Your task to perform on an android device: change the clock display to digital Image 0: 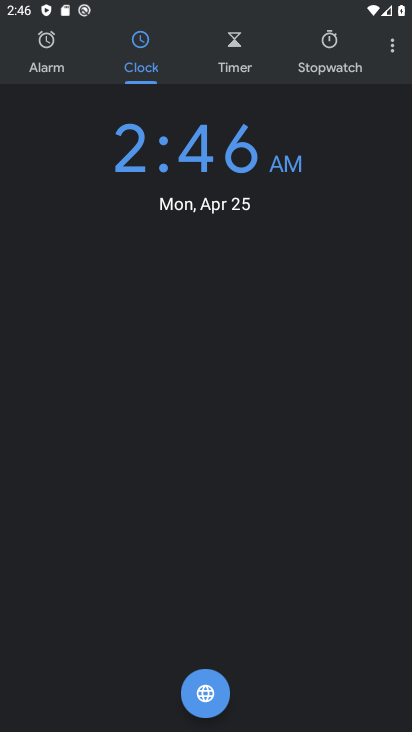
Step 0: press home button
Your task to perform on an android device: change the clock display to digital Image 1: 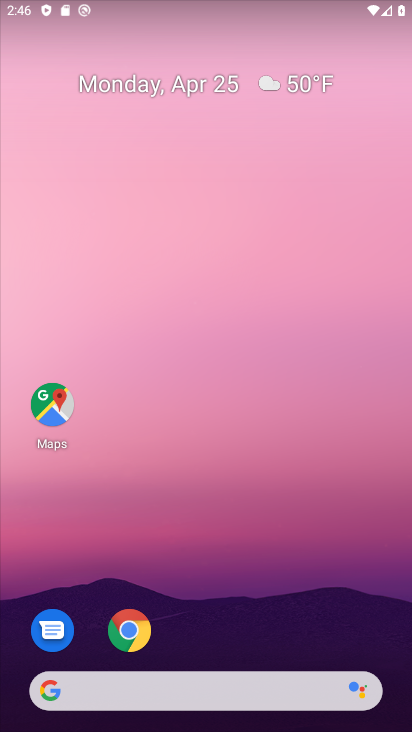
Step 1: drag from (206, 639) to (104, 138)
Your task to perform on an android device: change the clock display to digital Image 2: 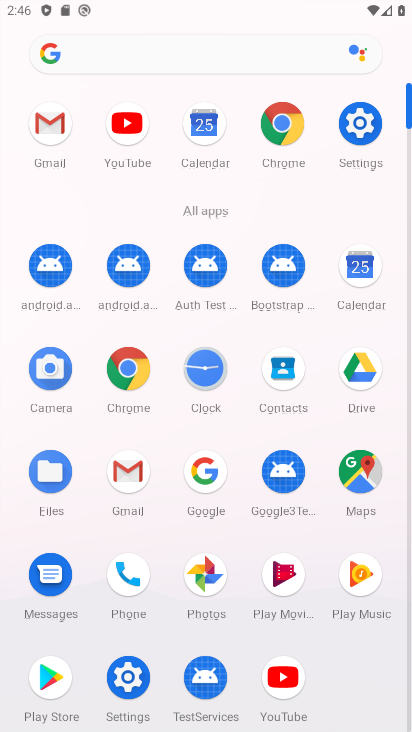
Step 2: click (210, 366)
Your task to perform on an android device: change the clock display to digital Image 3: 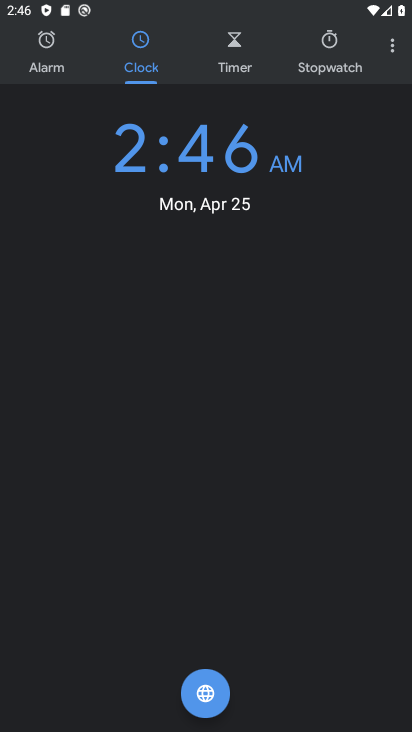
Step 3: click (394, 42)
Your task to perform on an android device: change the clock display to digital Image 4: 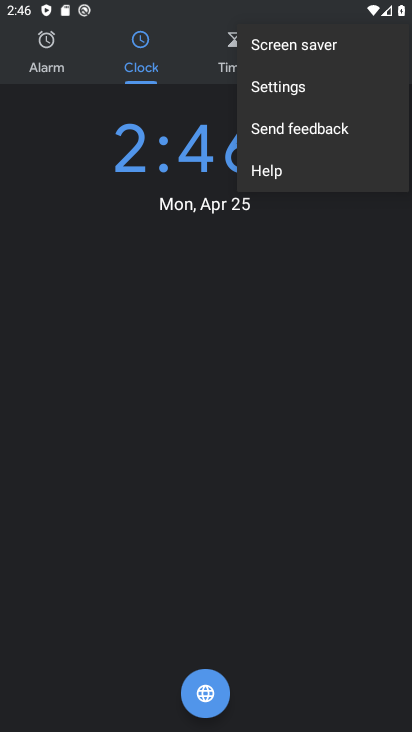
Step 4: click (295, 88)
Your task to perform on an android device: change the clock display to digital Image 5: 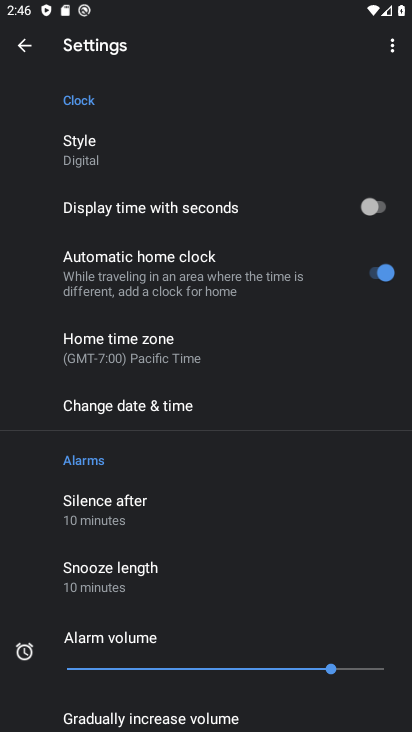
Step 5: task complete